Your task to perform on an android device: Open the calendar app, open the side menu, and click the "Day" option Image 0: 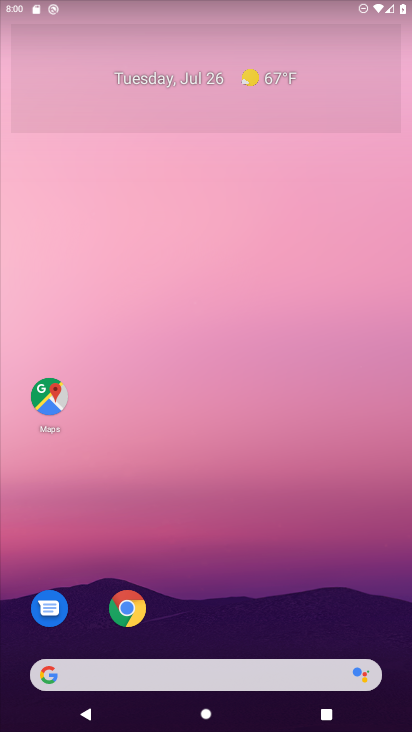
Step 0: drag from (213, 630) to (186, 4)
Your task to perform on an android device: Open the calendar app, open the side menu, and click the "Day" option Image 1: 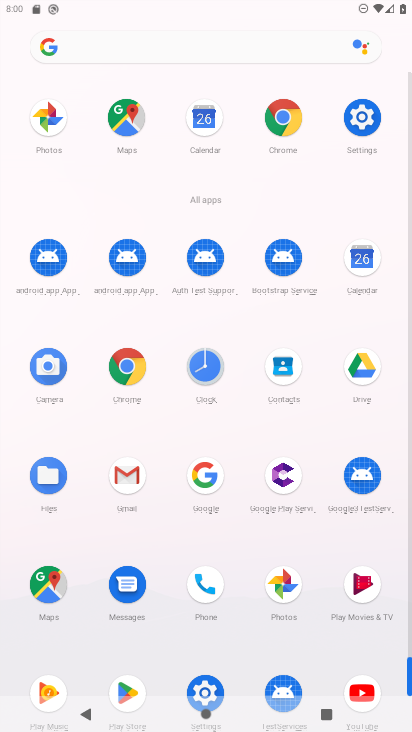
Step 1: click (368, 271)
Your task to perform on an android device: Open the calendar app, open the side menu, and click the "Day" option Image 2: 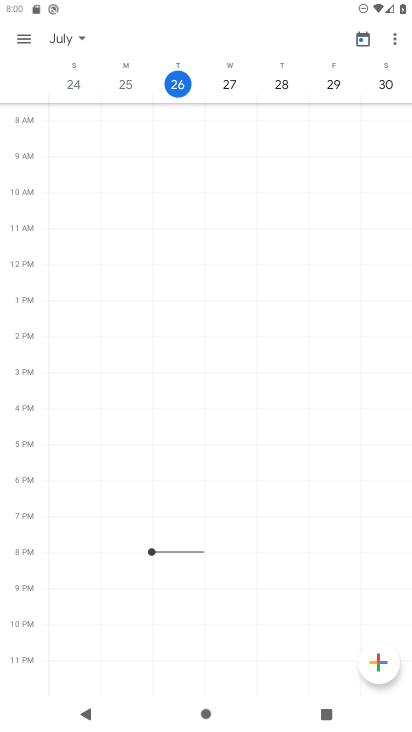
Step 2: click (28, 36)
Your task to perform on an android device: Open the calendar app, open the side menu, and click the "Day" option Image 3: 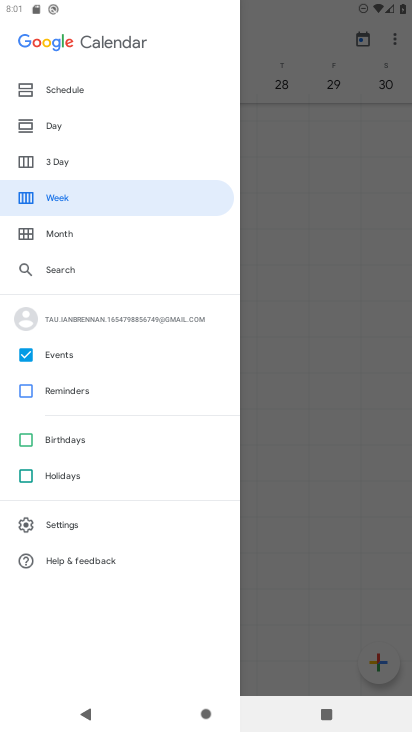
Step 3: click (61, 120)
Your task to perform on an android device: Open the calendar app, open the side menu, and click the "Day" option Image 4: 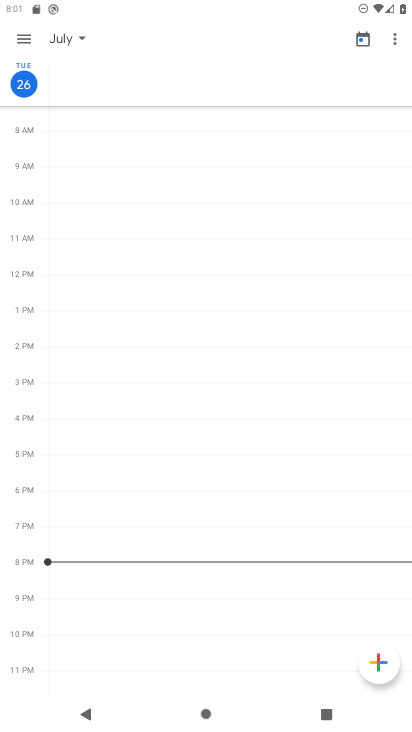
Step 4: task complete